Your task to perform on an android device: see tabs open on other devices in the chrome app Image 0: 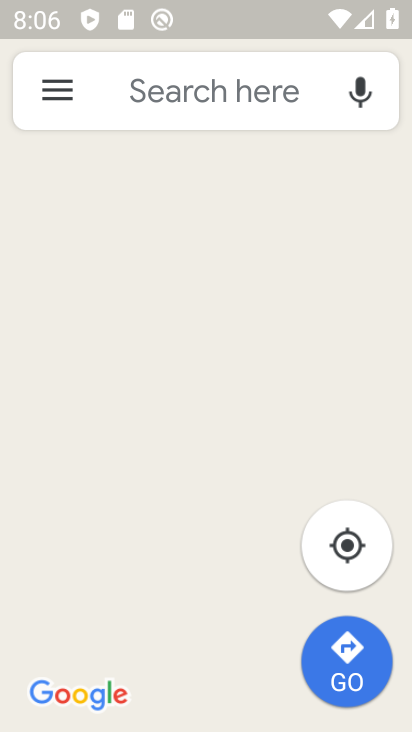
Step 0: drag from (178, 575) to (255, 91)
Your task to perform on an android device: see tabs open on other devices in the chrome app Image 1: 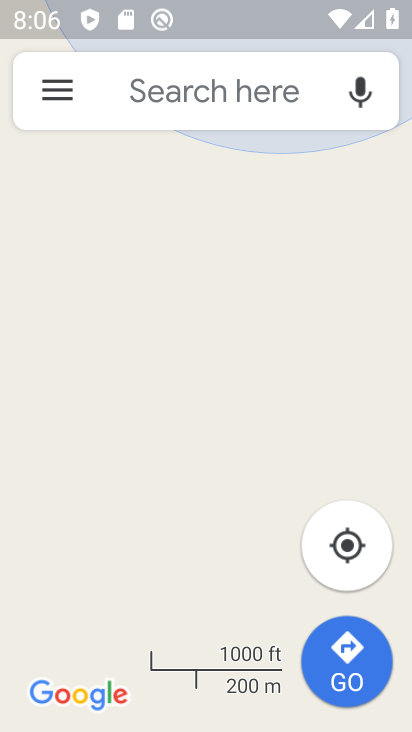
Step 1: press back button
Your task to perform on an android device: see tabs open on other devices in the chrome app Image 2: 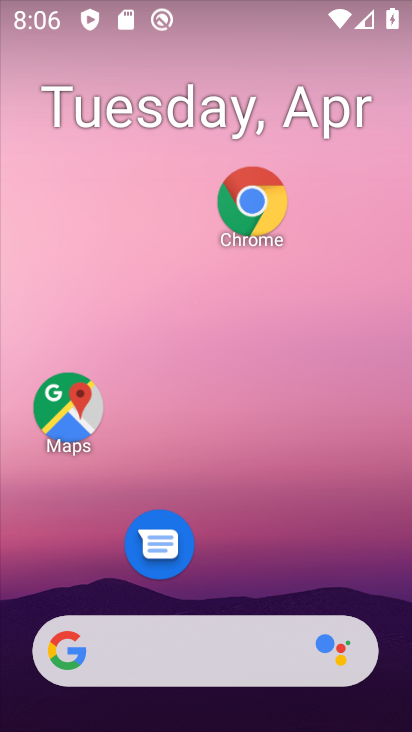
Step 2: click (255, 192)
Your task to perform on an android device: see tabs open on other devices in the chrome app Image 3: 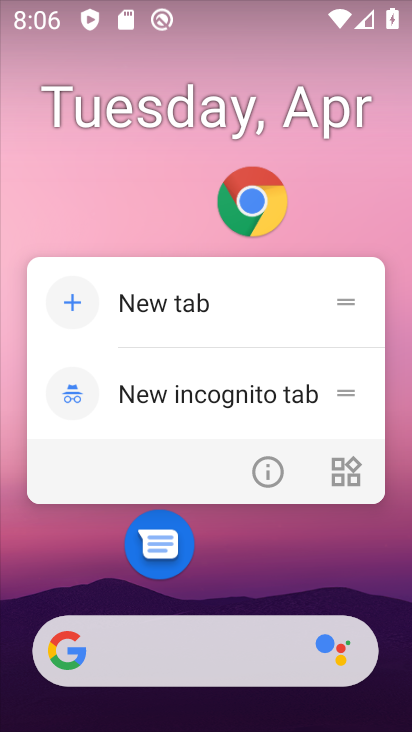
Step 3: click (266, 208)
Your task to perform on an android device: see tabs open on other devices in the chrome app Image 4: 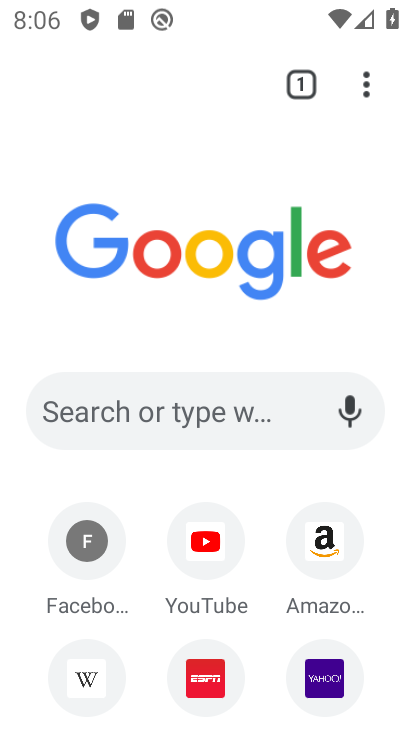
Step 4: click (371, 74)
Your task to perform on an android device: see tabs open on other devices in the chrome app Image 5: 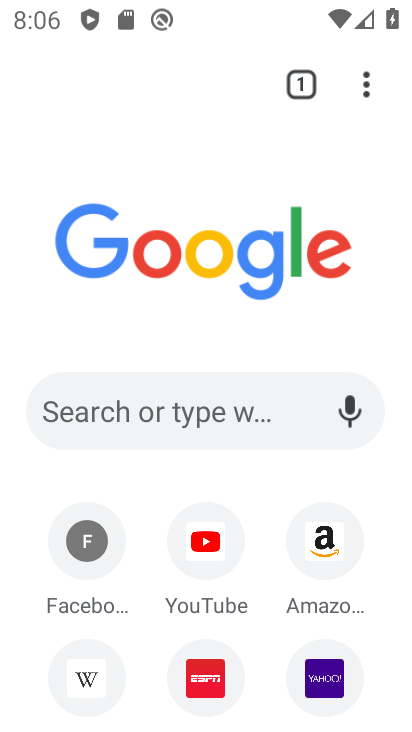
Step 5: task complete